Your task to perform on an android device: empty trash in google photos Image 0: 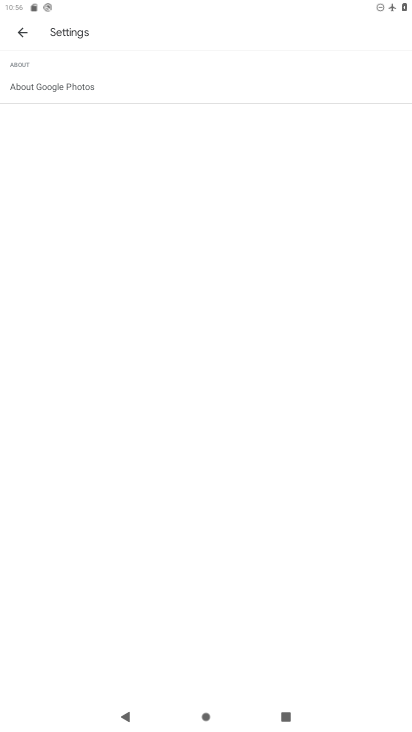
Step 0: press home button
Your task to perform on an android device: empty trash in google photos Image 1: 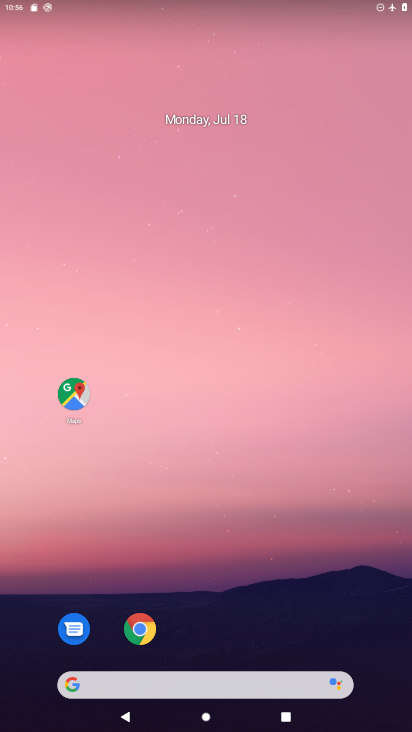
Step 1: drag from (282, 563) to (251, 7)
Your task to perform on an android device: empty trash in google photos Image 2: 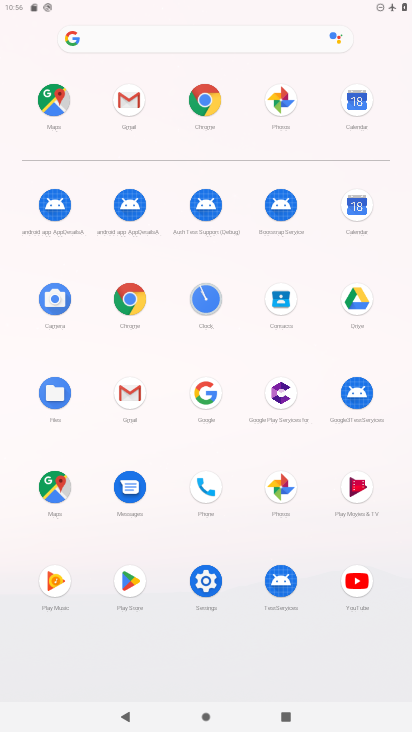
Step 2: click (281, 102)
Your task to perform on an android device: empty trash in google photos Image 3: 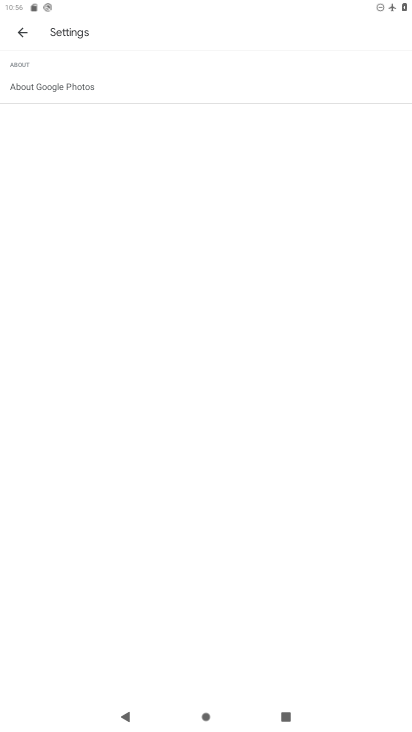
Step 3: click (22, 39)
Your task to perform on an android device: empty trash in google photos Image 4: 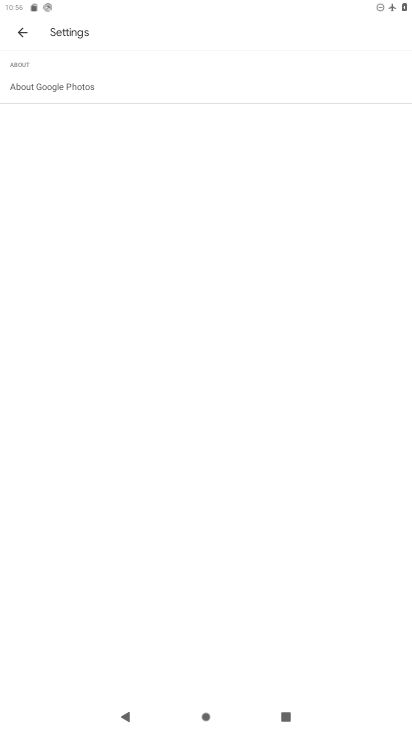
Step 4: click (22, 39)
Your task to perform on an android device: empty trash in google photos Image 5: 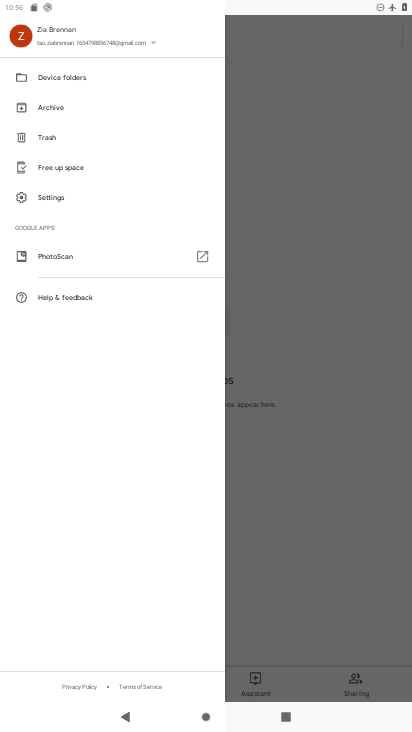
Step 5: click (40, 138)
Your task to perform on an android device: empty trash in google photos Image 6: 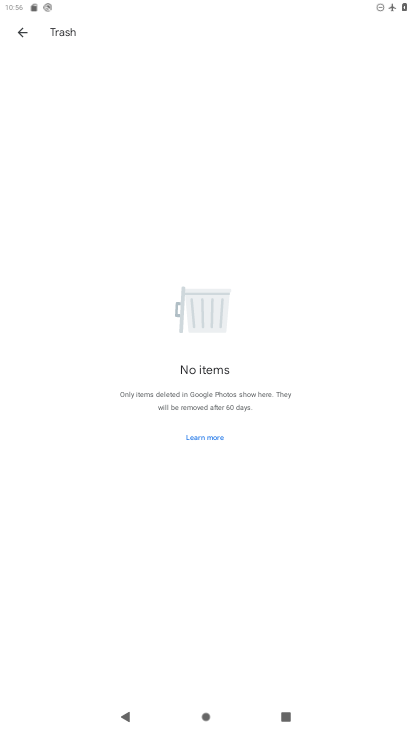
Step 6: task complete